Your task to perform on an android device: change the clock display to analog Image 0: 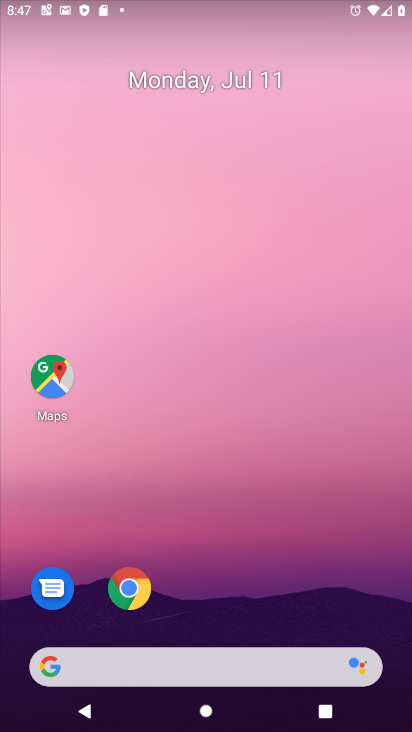
Step 0: drag from (208, 643) to (347, 148)
Your task to perform on an android device: change the clock display to analog Image 1: 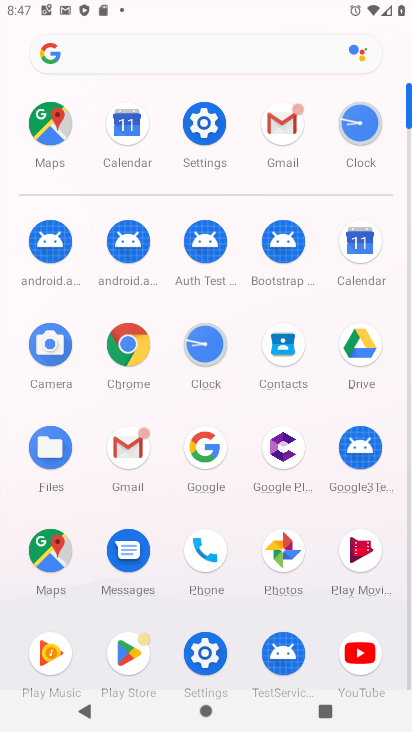
Step 1: click (201, 350)
Your task to perform on an android device: change the clock display to analog Image 2: 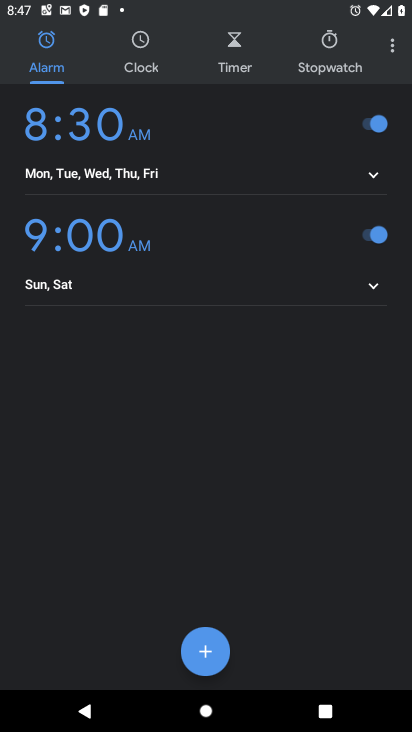
Step 2: click (389, 44)
Your task to perform on an android device: change the clock display to analog Image 3: 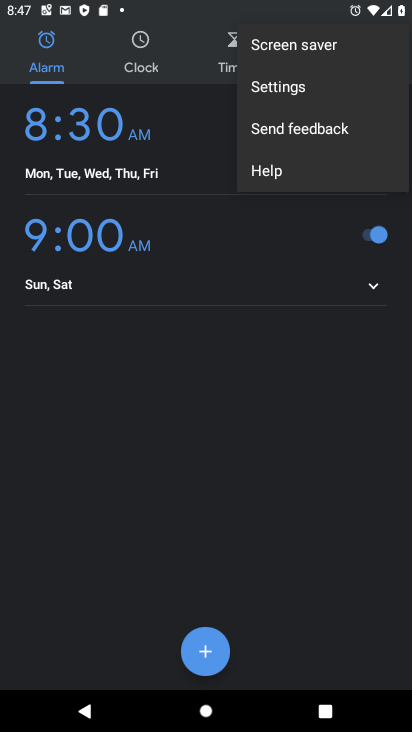
Step 3: click (309, 95)
Your task to perform on an android device: change the clock display to analog Image 4: 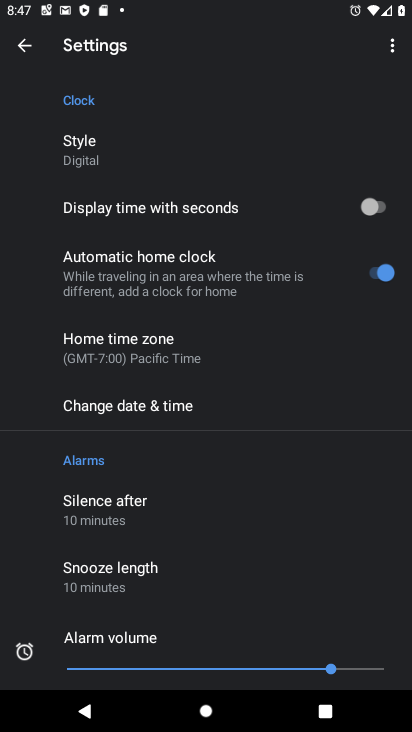
Step 4: click (93, 165)
Your task to perform on an android device: change the clock display to analog Image 5: 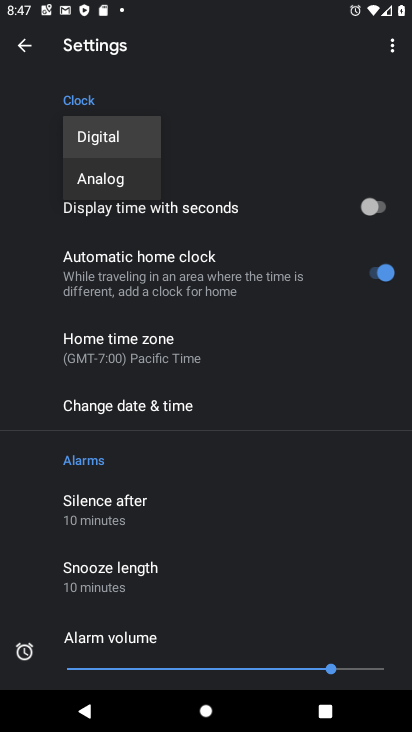
Step 5: click (121, 182)
Your task to perform on an android device: change the clock display to analog Image 6: 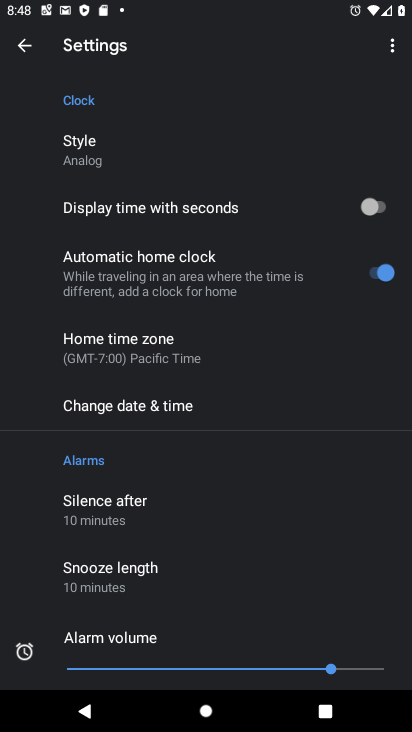
Step 6: task complete